Your task to perform on an android device: toggle pop-ups in chrome Image 0: 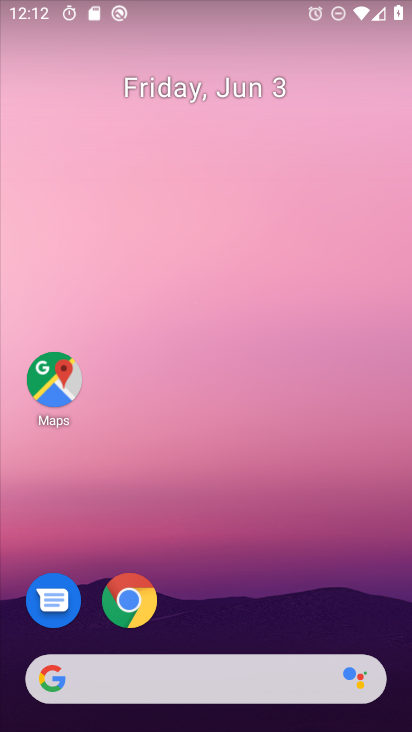
Step 0: click (131, 600)
Your task to perform on an android device: toggle pop-ups in chrome Image 1: 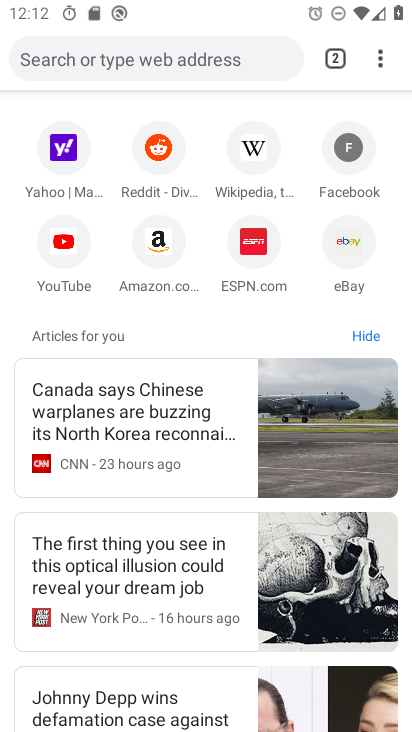
Step 1: click (375, 62)
Your task to perform on an android device: toggle pop-ups in chrome Image 2: 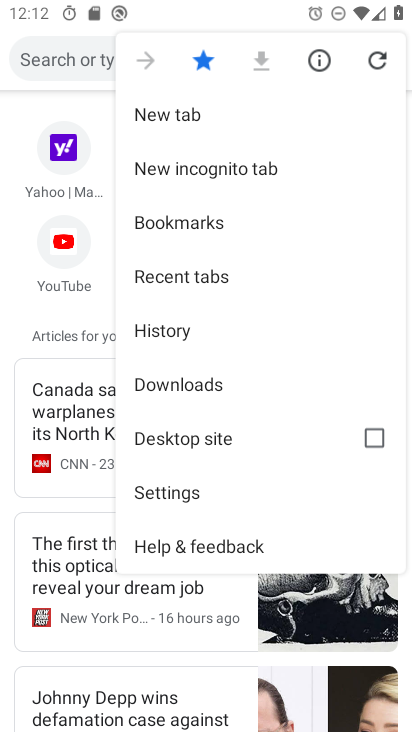
Step 2: click (186, 483)
Your task to perform on an android device: toggle pop-ups in chrome Image 3: 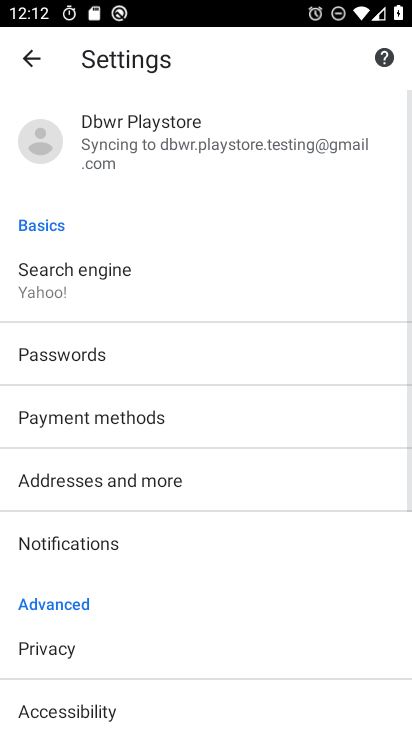
Step 3: drag from (123, 682) to (107, 227)
Your task to perform on an android device: toggle pop-ups in chrome Image 4: 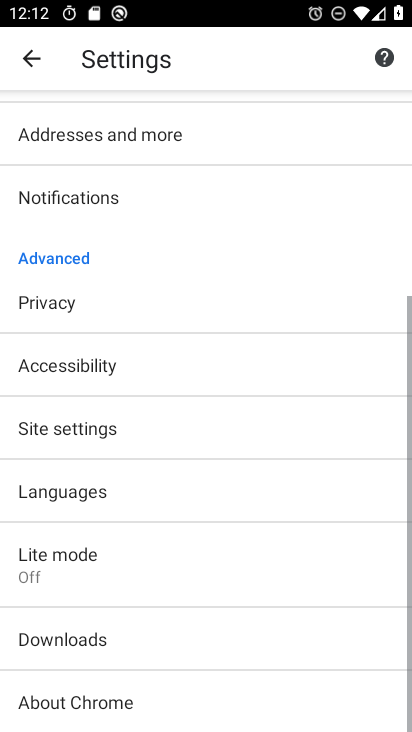
Step 4: click (67, 437)
Your task to perform on an android device: toggle pop-ups in chrome Image 5: 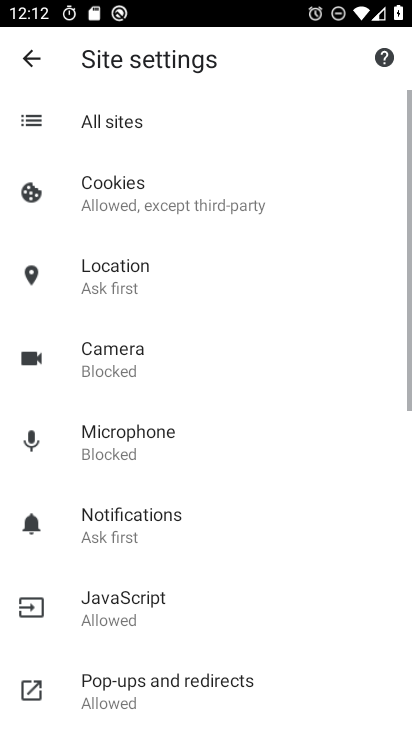
Step 5: drag from (199, 615) to (221, 221)
Your task to perform on an android device: toggle pop-ups in chrome Image 6: 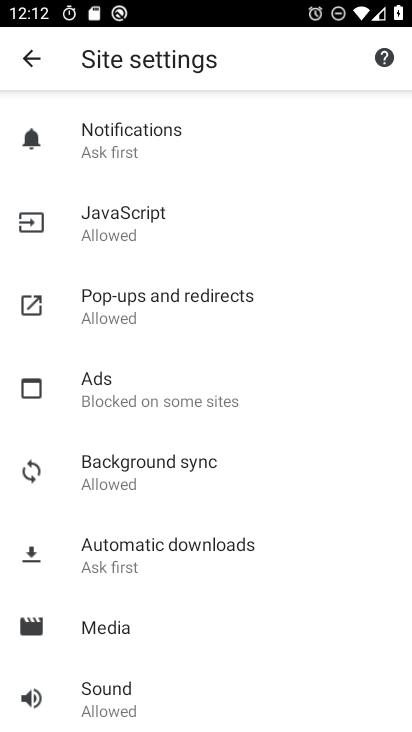
Step 6: click (174, 292)
Your task to perform on an android device: toggle pop-ups in chrome Image 7: 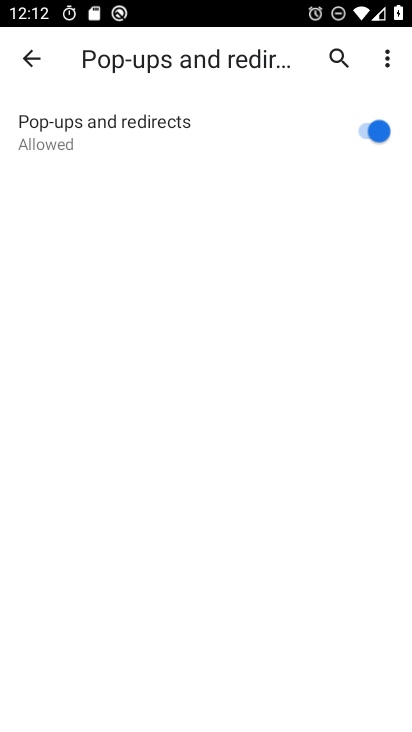
Step 7: click (361, 136)
Your task to perform on an android device: toggle pop-ups in chrome Image 8: 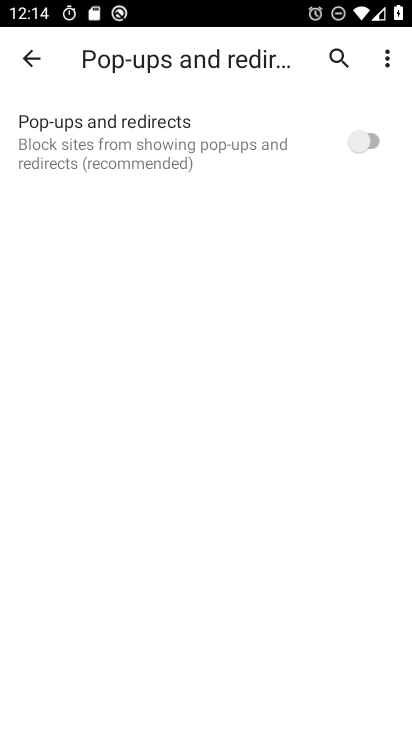
Step 8: task complete